Your task to perform on an android device: open app "PlayWell" (install if not already installed), go to login, and select forgot password Image 0: 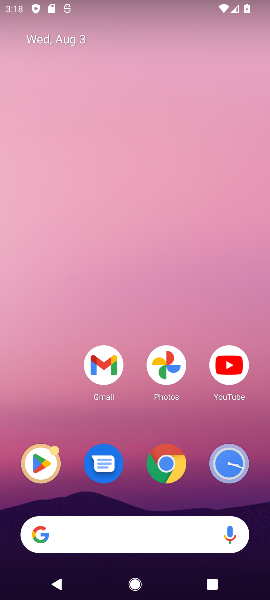
Step 0: drag from (147, 533) to (129, 151)
Your task to perform on an android device: open app "PlayWell" (install if not already installed), go to login, and select forgot password Image 1: 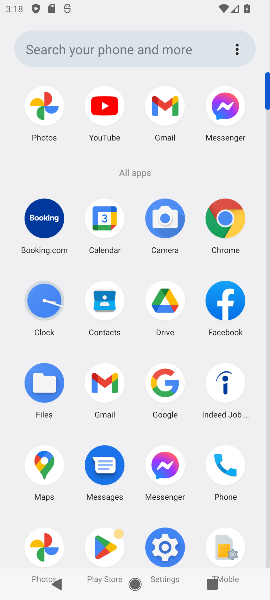
Step 1: click (109, 545)
Your task to perform on an android device: open app "PlayWell" (install if not already installed), go to login, and select forgot password Image 2: 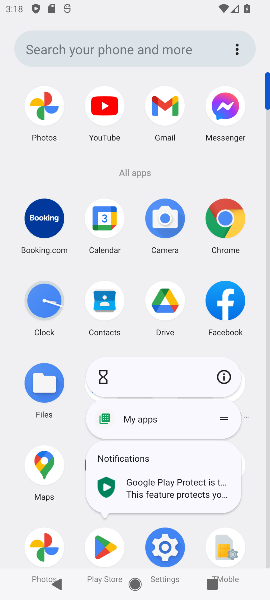
Step 2: click (99, 539)
Your task to perform on an android device: open app "PlayWell" (install if not already installed), go to login, and select forgot password Image 3: 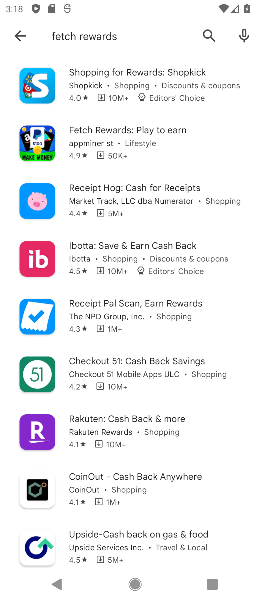
Step 3: click (201, 33)
Your task to perform on an android device: open app "PlayWell" (install if not already installed), go to login, and select forgot password Image 4: 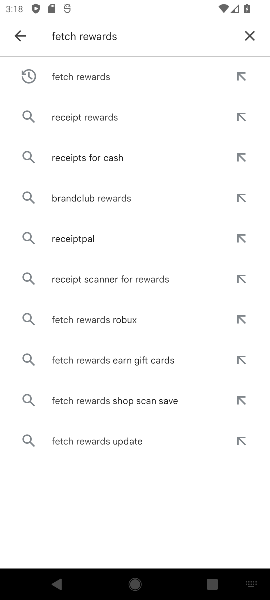
Step 4: click (250, 31)
Your task to perform on an android device: open app "PlayWell" (install if not already installed), go to login, and select forgot password Image 5: 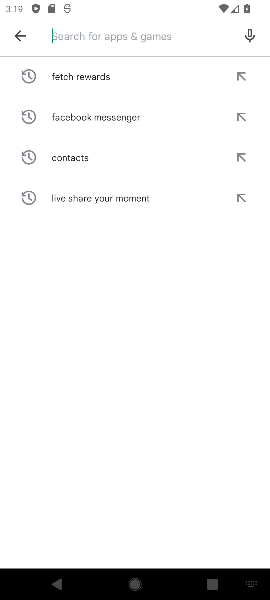
Step 5: type "playwell"
Your task to perform on an android device: open app "PlayWell" (install if not already installed), go to login, and select forgot password Image 6: 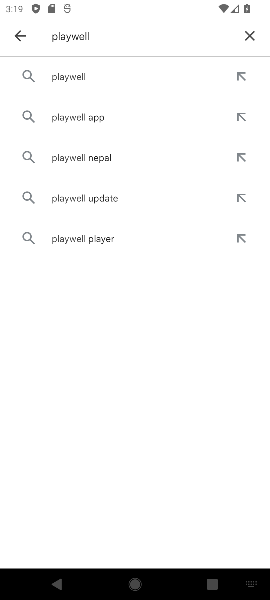
Step 6: click (60, 70)
Your task to perform on an android device: open app "PlayWell" (install if not already installed), go to login, and select forgot password Image 7: 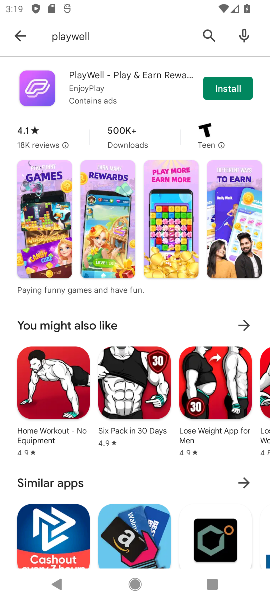
Step 7: click (227, 90)
Your task to perform on an android device: open app "PlayWell" (install if not already installed), go to login, and select forgot password Image 8: 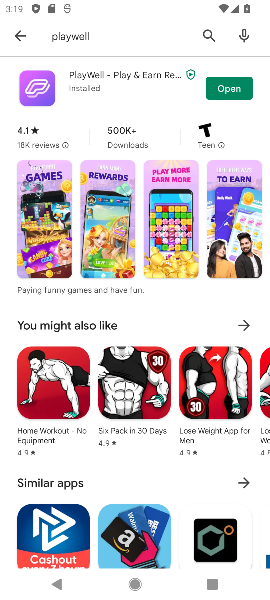
Step 8: click (224, 91)
Your task to perform on an android device: open app "PlayWell" (install if not already installed), go to login, and select forgot password Image 9: 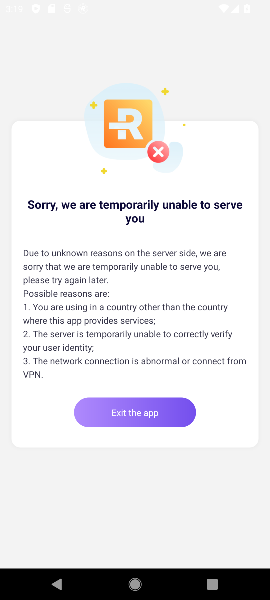
Step 9: click (63, 97)
Your task to perform on an android device: open app "PlayWell" (install if not already installed), go to login, and select forgot password Image 10: 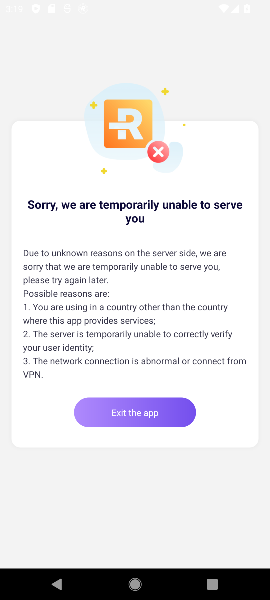
Step 10: click (157, 148)
Your task to perform on an android device: open app "PlayWell" (install if not already installed), go to login, and select forgot password Image 11: 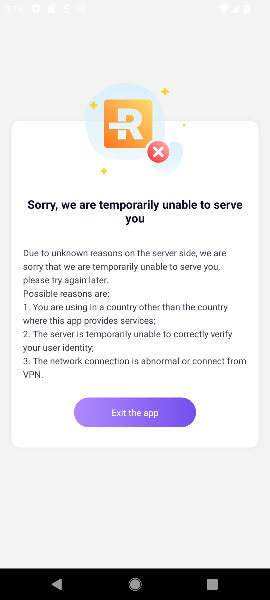
Step 11: click (157, 149)
Your task to perform on an android device: open app "PlayWell" (install if not already installed), go to login, and select forgot password Image 12: 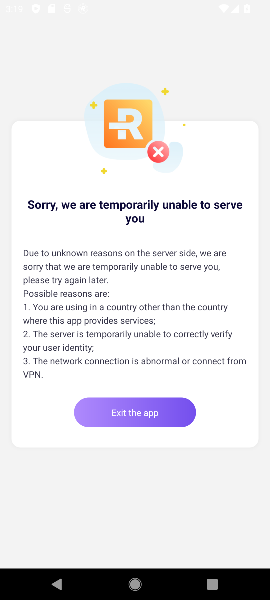
Step 12: click (156, 150)
Your task to perform on an android device: open app "PlayWell" (install if not already installed), go to login, and select forgot password Image 13: 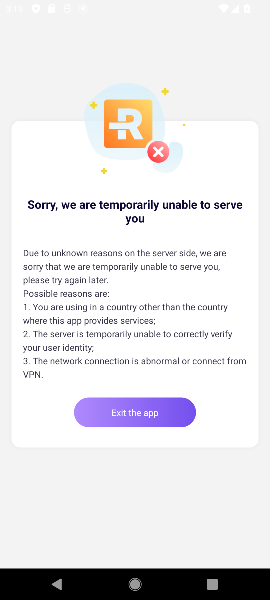
Step 13: click (156, 150)
Your task to perform on an android device: open app "PlayWell" (install if not already installed), go to login, and select forgot password Image 14: 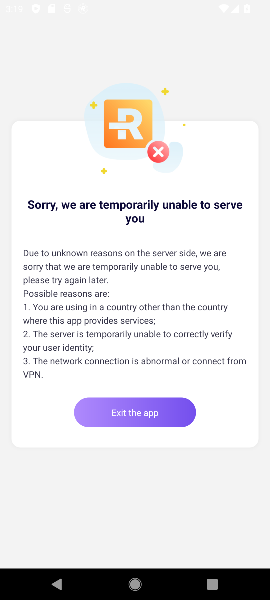
Step 14: click (156, 150)
Your task to perform on an android device: open app "PlayWell" (install if not already installed), go to login, and select forgot password Image 15: 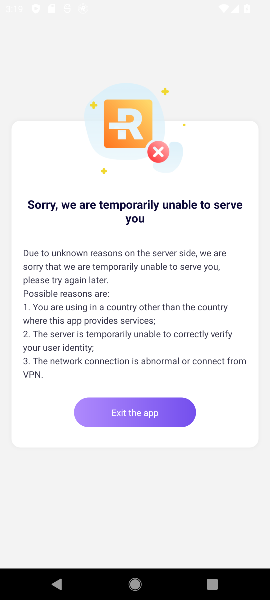
Step 15: click (157, 148)
Your task to perform on an android device: open app "PlayWell" (install if not already installed), go to login, and select forgot password Image 16: 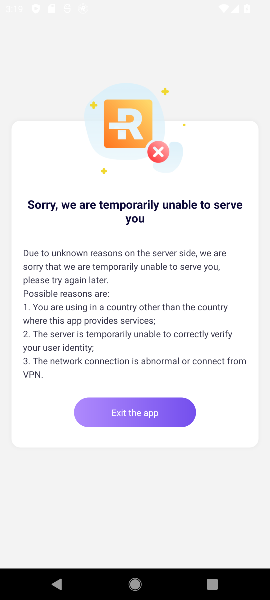
Step 16: click (157, 148)
Your task to perform on an android device: open app "PlayWell" (install if not already installed), go to login, and select forgot password Image 17: 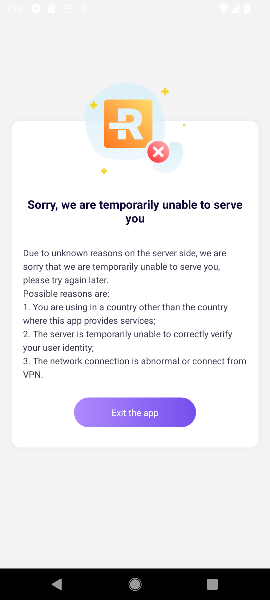
Step 17: click (157, 147)
Your task to perform on an android device: open app "PlayWell" (install if not already installed), go to login, and select forgot password Image 18: 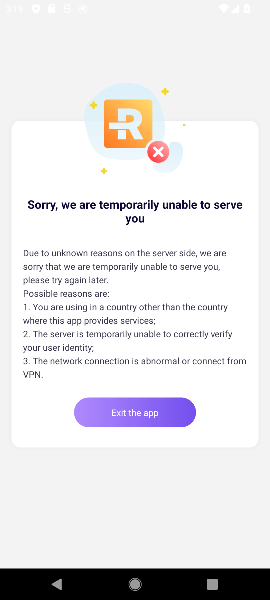
Step 18: task complete